Your task to perform on an android device: What's the weather going to be tomorrow? Image 0: 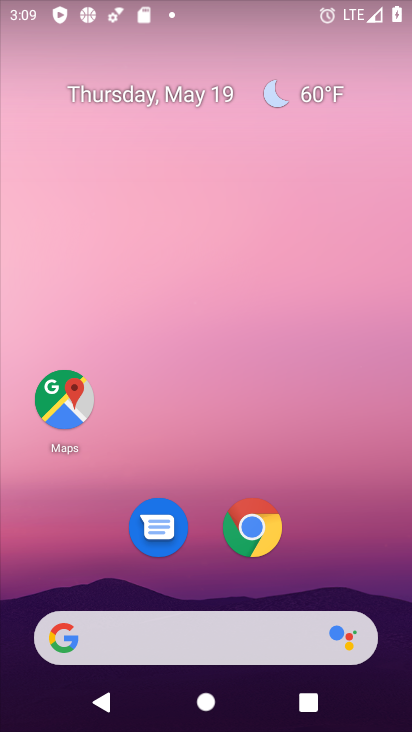
Step 0: click (287, 81)
Your task to perform on an android device: What's the weather going to be tomorrow? Image 1: 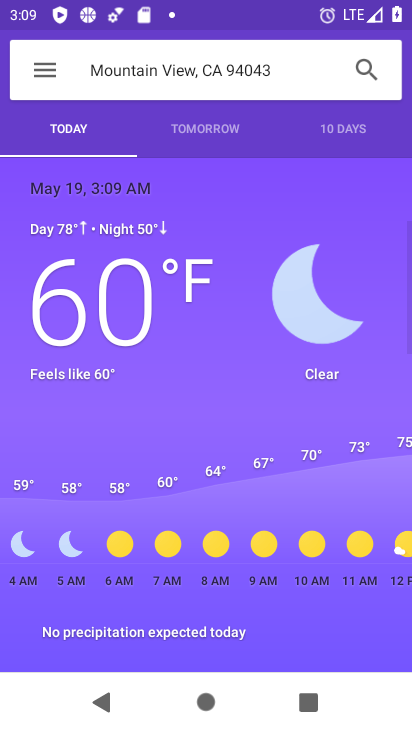
Step 1: click (198, 130)
Your task to perform on an android device: What's the weather going to be tomorrow? Image 2: 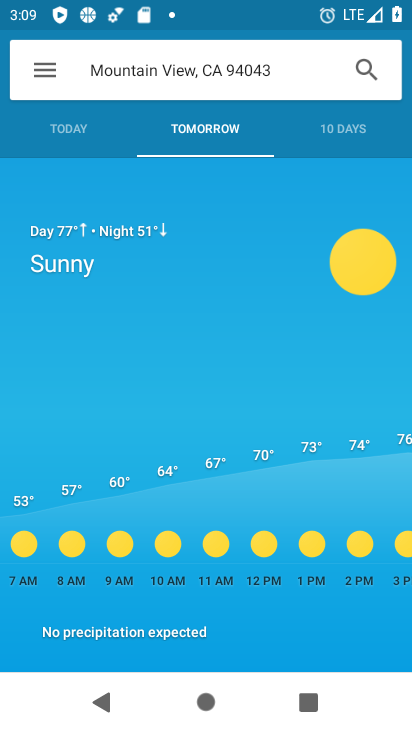
Step 2: task complete